Your task to perform on an android device: clear all cookies in the chrome app Image 0: 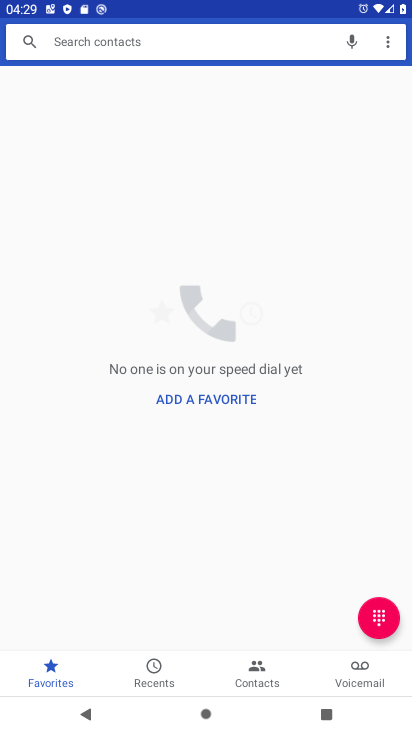
Step 0: press home button
Your task to perform on an android device: clear all cookies in the chrome app Image 1: 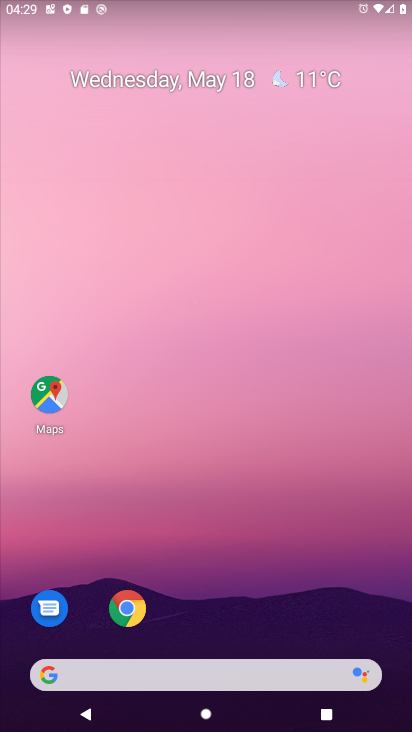
Step 1: click (131, 619)
Your task to perform on an android device: clear all cookies in the chrome app Image 2: 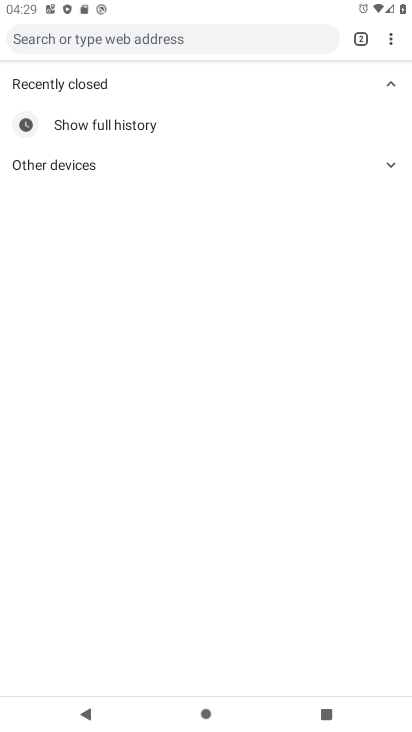
Step 2: click (399, 37)
Your task to perform on an android device: clear all cookies in the chrome app Image 3: 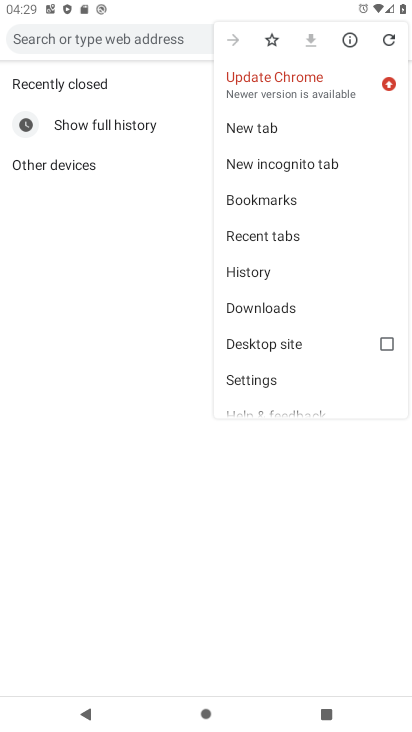
Step 3: click (239, 378)
Your task to perform on an android device: clear all cookies in the chrome app Image 4: 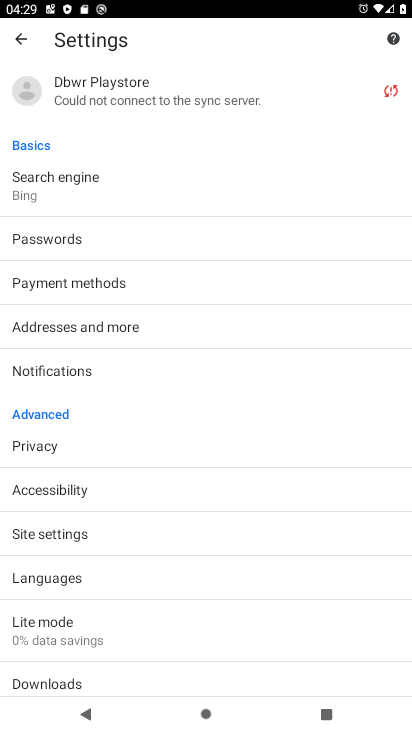
Step 4: click (32, 33)
Your task to perform on an android device: clear all cookies in the chrome app Image 5: 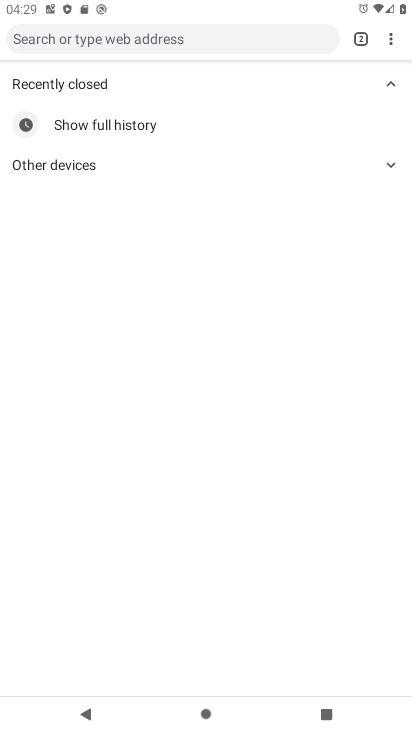
Step 5: click (390, 44)
Your task to perform on an android device: clear all cookies in the chrome app Image 6: 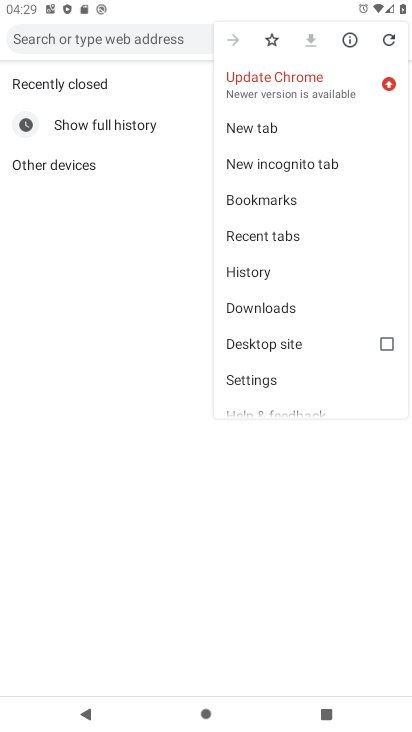
Step 6: click (231, 271)
Your task to perform on an android device: clear all cookies in the chrome app Image 7: 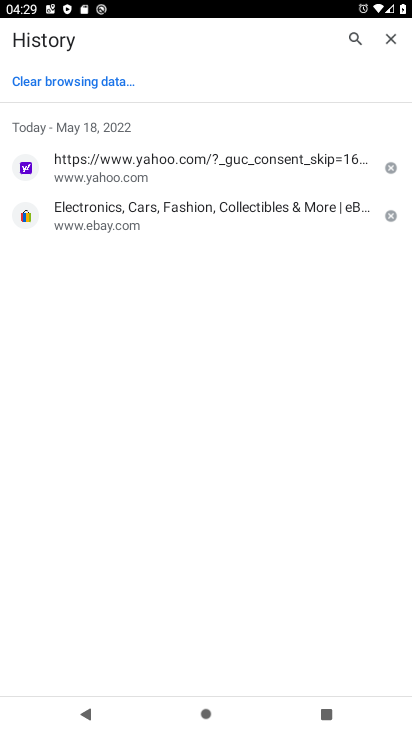
Step 7: click (68, 73)
Your task to perform on an android device: clear all cookies in the chrome app Image 8: 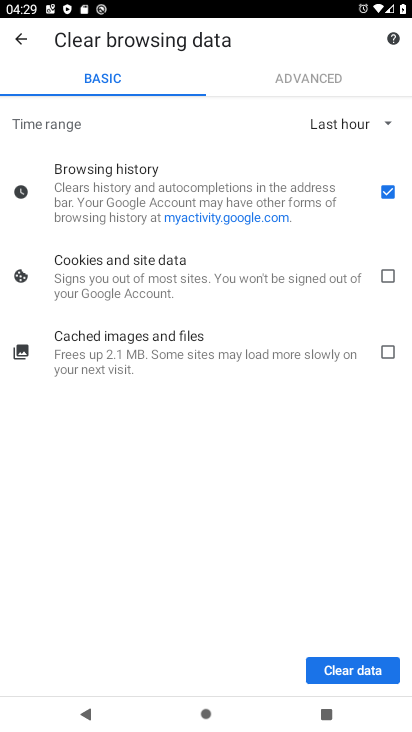
Step 8: click (331, 675)
Your task to perform on an android device: clear all cookies in the chrome app Image 9: 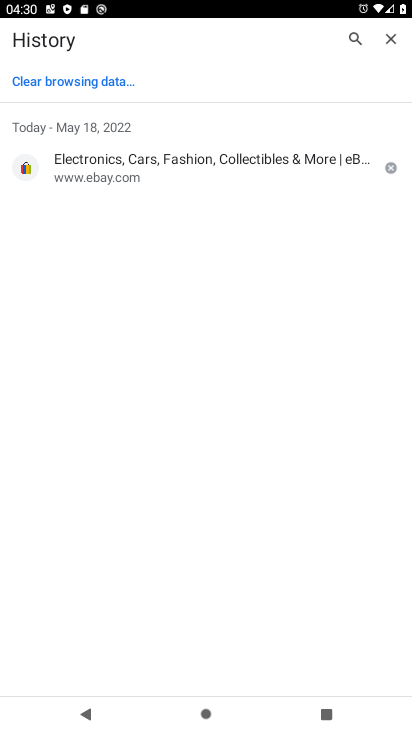
Step 9: click (97, 76)
Your task to perform on an android device: clear all cookies in the chrome app Image 10: 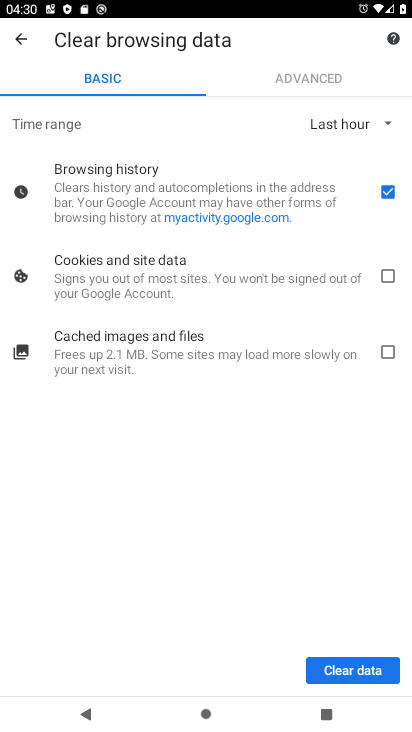
Step 10: click (331, 670)
Your task to perform on an android device: clear all cookies in the chrome app Image 11: 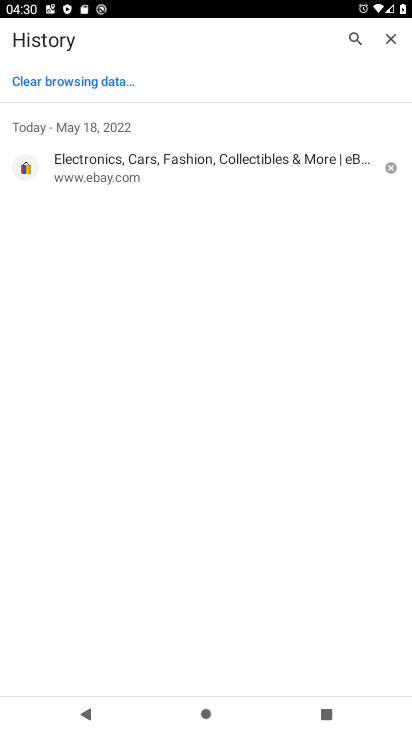
Step 11: task complete